Your task to perform on an android device: turn off smart reply in the gmail app Image 0: 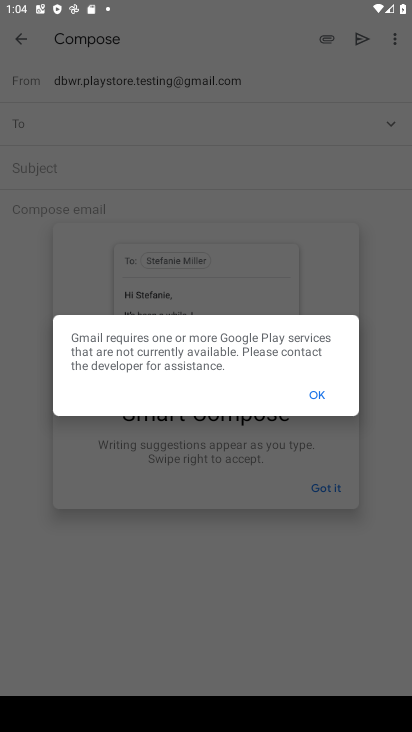
Step 0: press home button
Your task to perform on an android device: turn off smart reply in the gmail app Image 1: 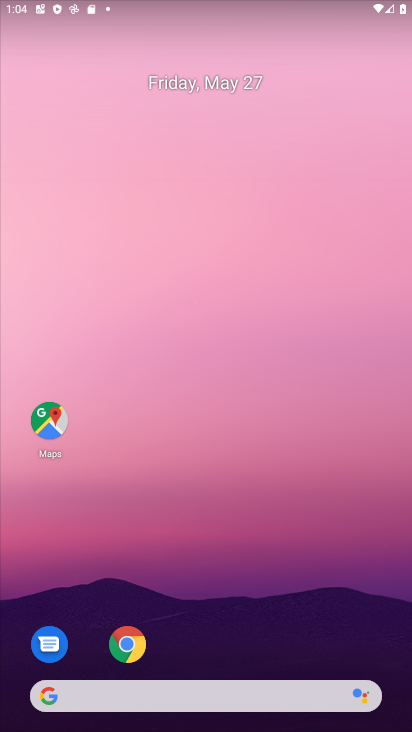
Step 1: drag from (311, 641) to (233, 129)
Your task to perform on an android device: turn off smart reply in the gmail app Image 2: 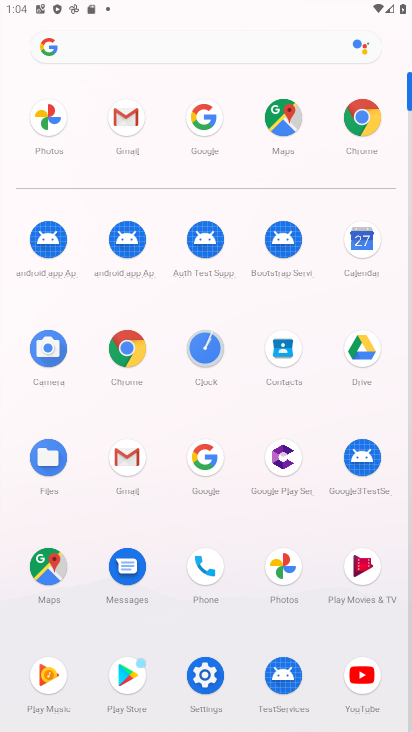
Step 2: click (124, 479)
Your task to perform on an android device: turn off smart reply in the gmail app Image 3: 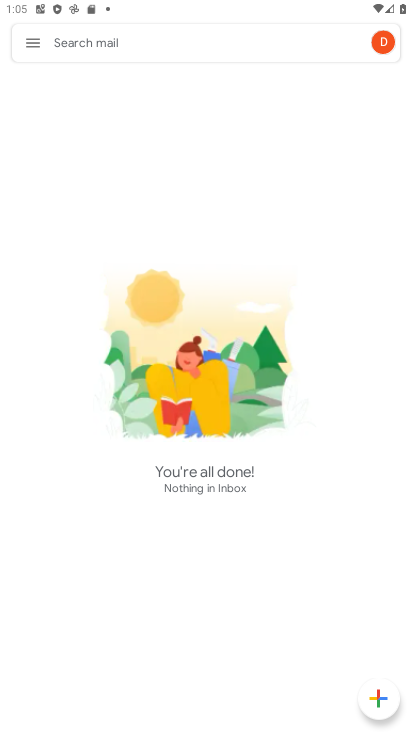
Step 3: click (18, 48)
Your task to perform on an android device: turn off smart reply in the gmail app Image 4: 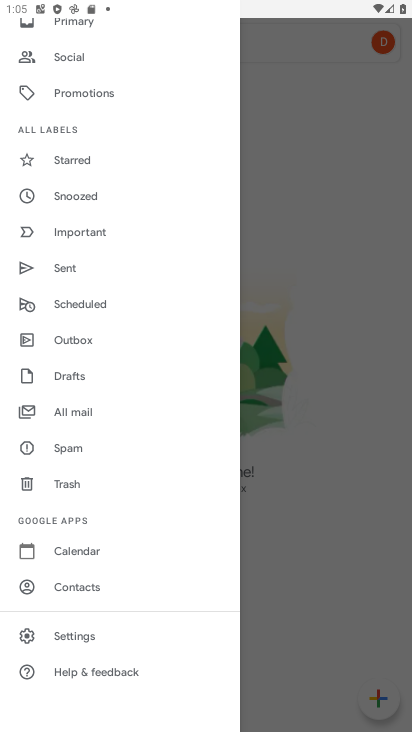
Step 4: click (64, 626)
Your task to perform on an android device: turn off smart reply in the gmail app Image 5: 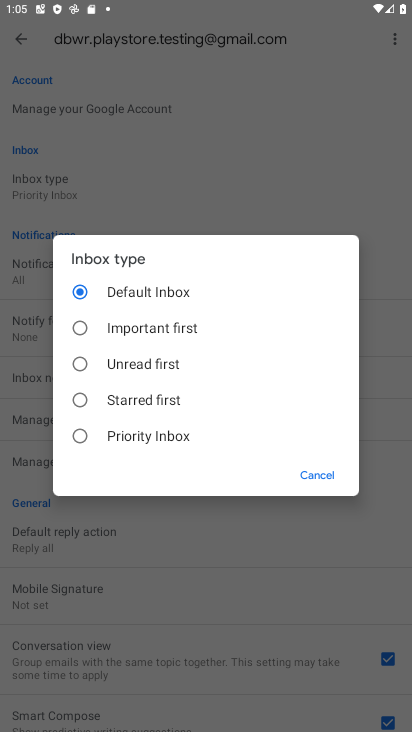
Step 5: click (317, 477)
Your task to perform on an android device: turn off smart reply in the gmail app Image 6: 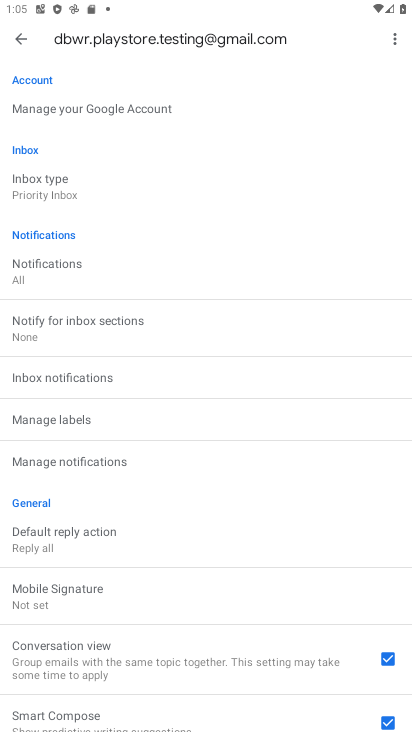
Step 6: drag from (167, 692) to (197, 98)
Your task to perform on an android device: turn off smart reply in the gmail app Image 7: 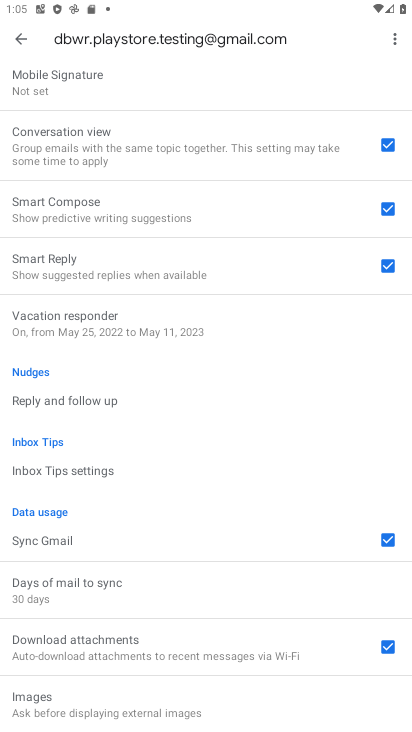
Step 7: click (151, 264)
Your task to perform on an android device: turn off smart reply in the gmail app Image 8: 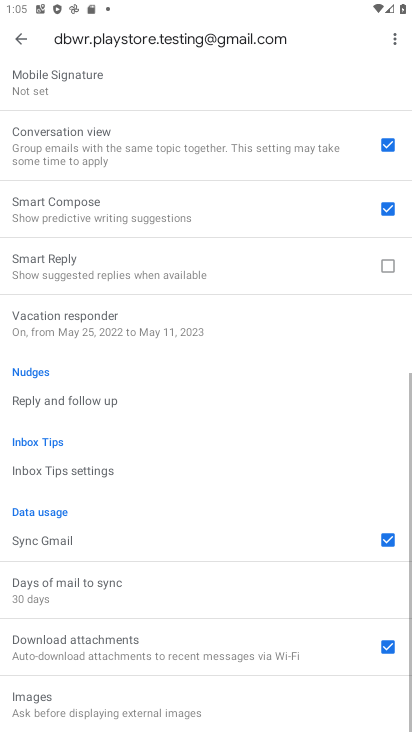
Step 8: task complete